Your task to perform on an android device: check android version Image 0: 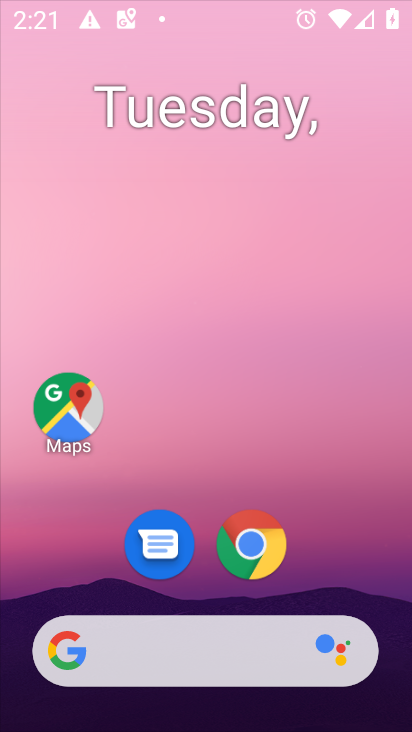
Step 0: drag from (311, 283) to (335, 125)
Your task to perform on an android device: check android version Image 1: 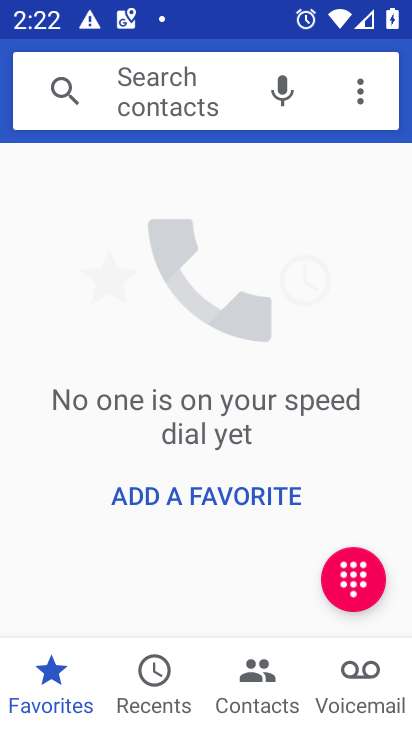
Step 1: press home button
Your task to perform on an android device: check android version Image 2: 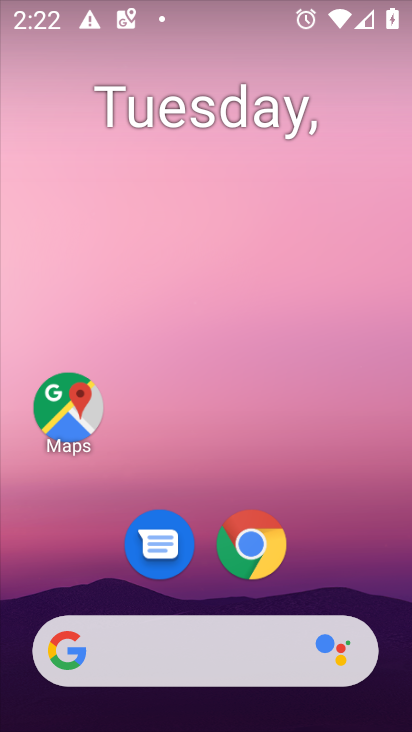
Step 2: drag from (335, 523) to (322, 117)
Your task to perform on an android device: check android version Image 3: 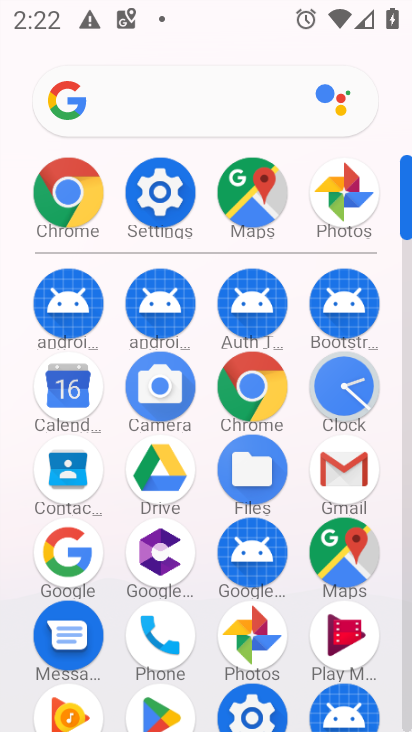
Step 3: click (169, 188)
Your task to perform on an android device: check android version Image 4: 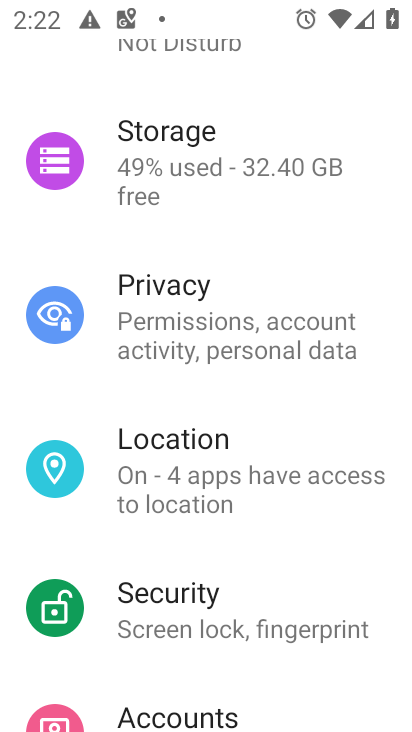
Step 4: drag from (238, 533) to (283, 53)
Your task to perform on an android device: check android version Image 5: 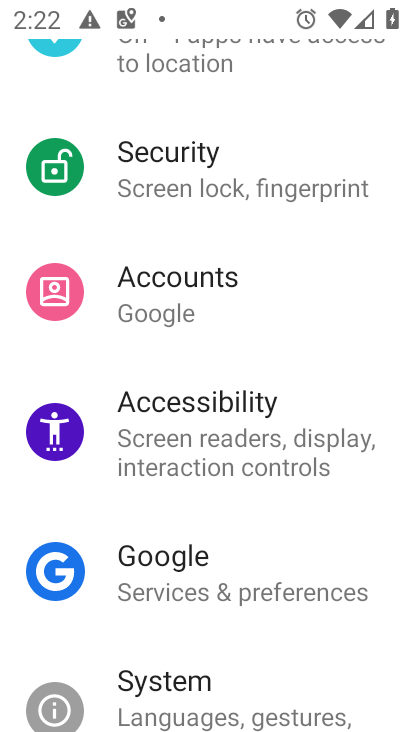
Step 5: drag from (225, 646) to (276, 239)
Your task to perform on an android device: check android version Image 6: 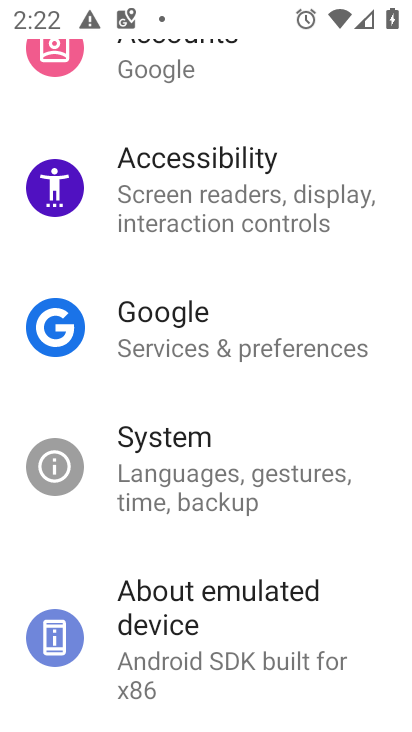
Step 6: drag from (199, 614) to (241, 292)
Your task to perform on an android device: check android version Image 7: 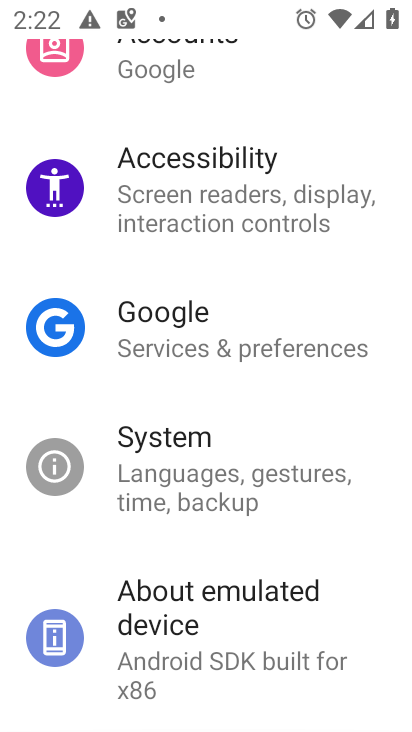
Step 7: click (161, 634)
Your task to perform on an android device: check android version Image 8: 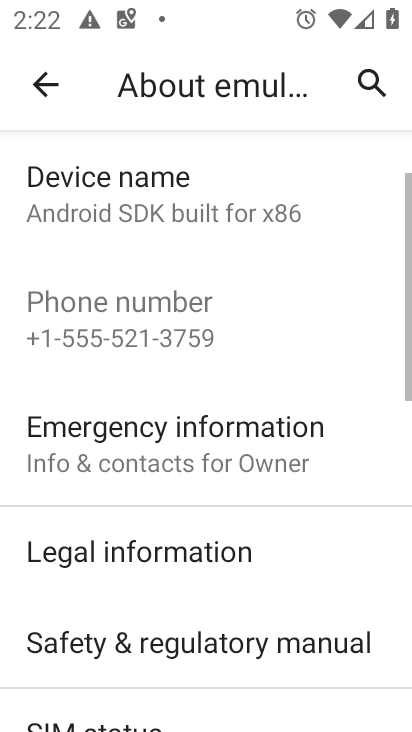
Step 8: drag from (237, 579) to (293, 92)
Your task to perform on an android device: check android version Image 9: 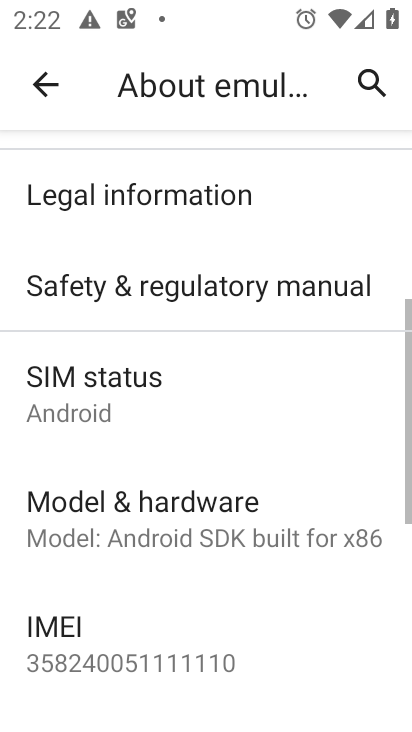
Step 9: drag from (233, 622) to (299, 214)
Your task to perform on an android device: check android version Image 10: 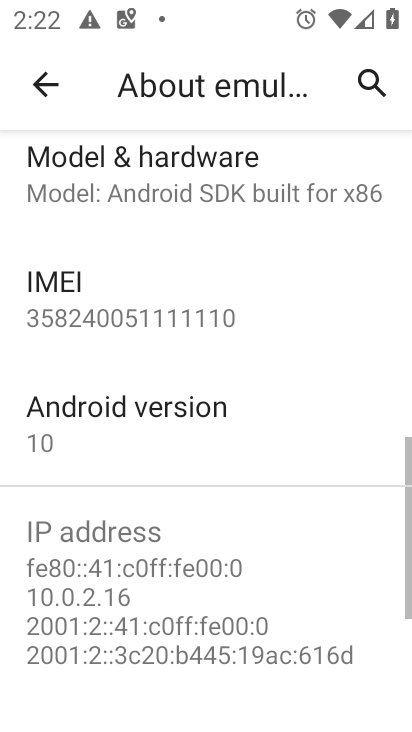
Step 10: drag from (248, 478) to (293, 249)
Your task to perform on an android device: check android version Image 11: 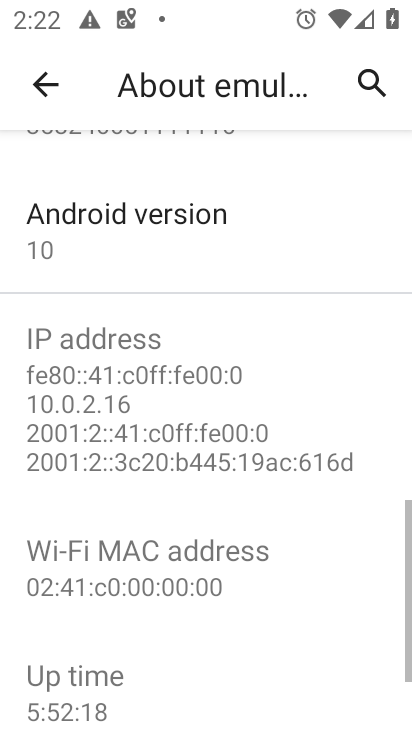
Step 11: click (210, 270)
Your task to perform on an android device: check android version Image 12: 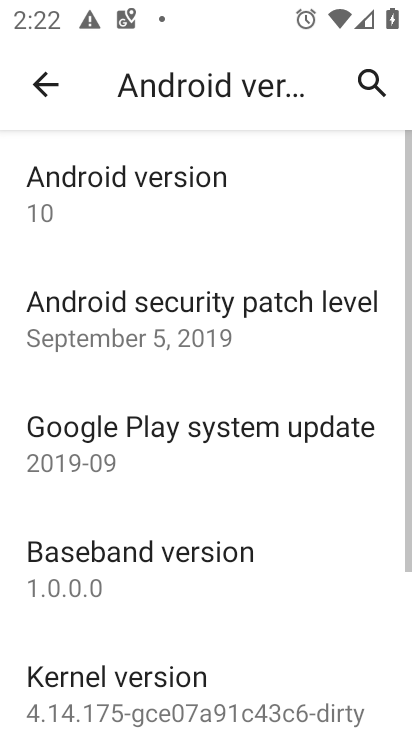
Step 12: task complete